Your task to perform on an android device: turn pop-ups on in chrome Image 0: 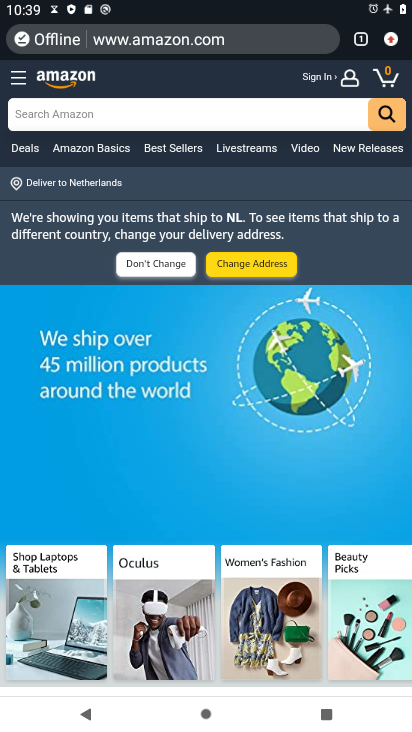
Step 0: press home button
Your task to perform on an android device: turn pop-ups on in chrome Image 1: 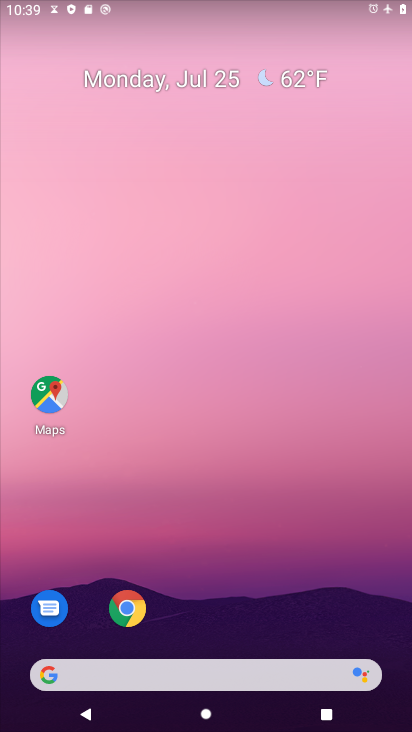
Step 1: click (126, 607)
Your task to perform on an android device: turn pop-ups on in chrome Image 2: 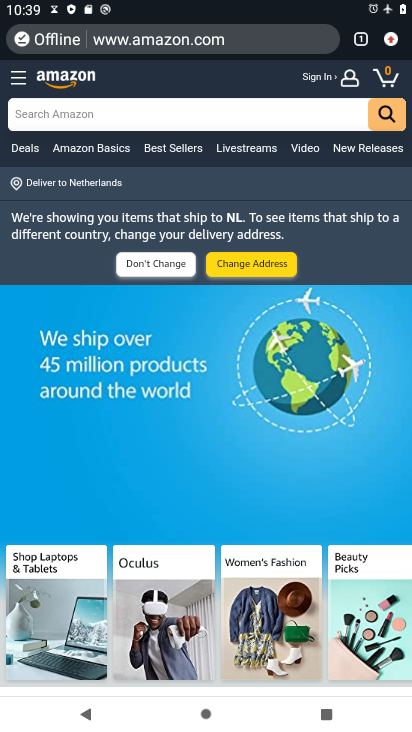
Step 2: click (390, 40)
Your task to perform on an android device: turn pop-ups on in chrome Image 3: 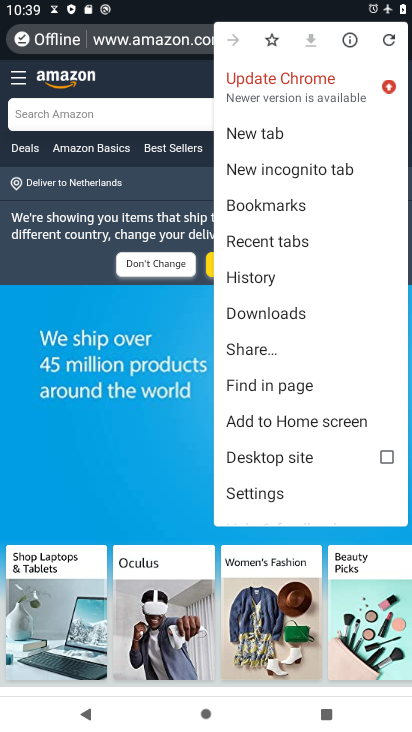
Step 3: click (260, 494)
Your task to perform on an android device: turn pop-ups on in chrome Image 4: 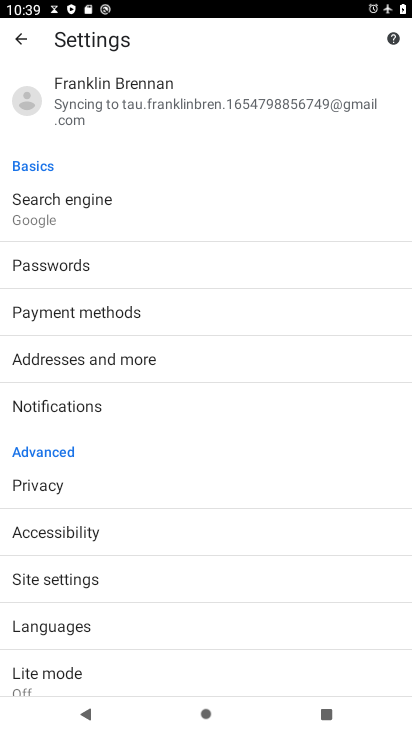
Step 4: drag from (93, 478) to (176, 303)
Your task to perform on an android device: turn pop-ups on in chrome Image 5: 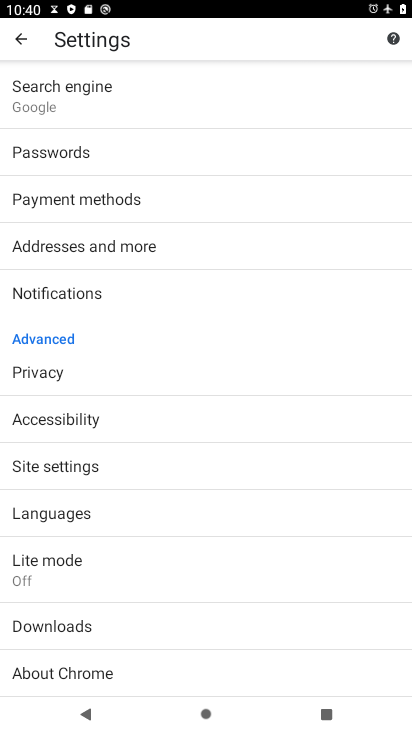
Step 5: click (40, 466)
Your task to perform on an android device: turn pop-ups on in chrome Image 6: 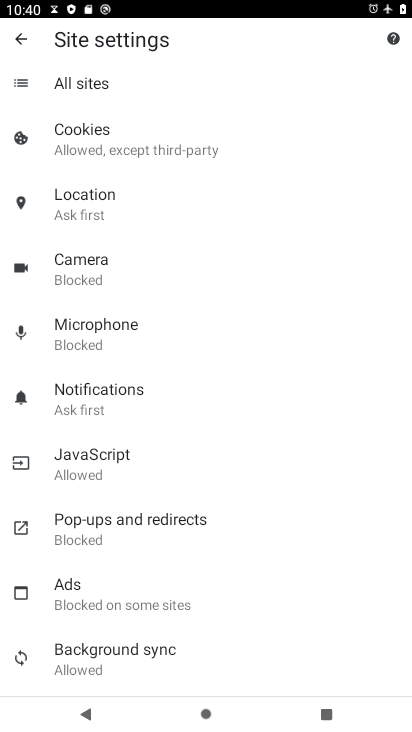
Step 6: click (94, 522)
Your task to perform on an android device: turn pop-ups on in chrome Image 7: 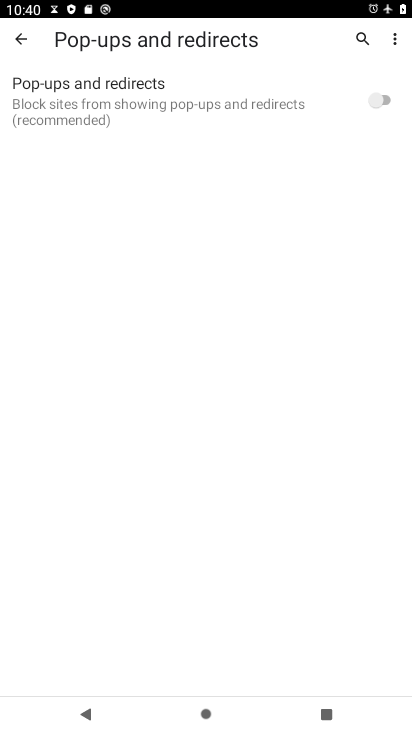
Step 7: click (383, 101)
Your task to perform on an android device: turn pop-ups on in chrome Image 8: 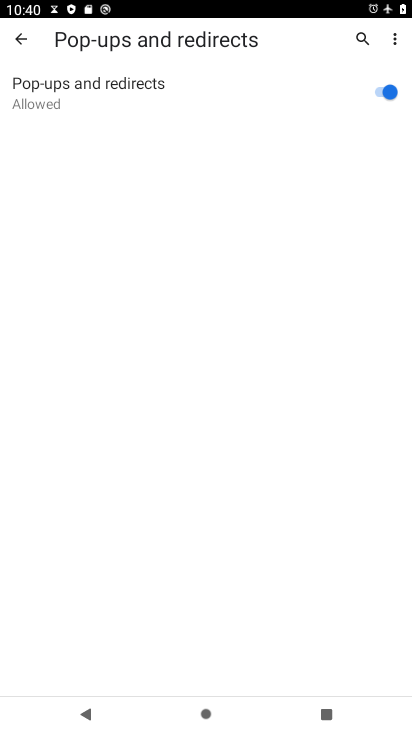
Step 8: task complete